Your task to perform on an android device: turn on airplane mode Image 0: 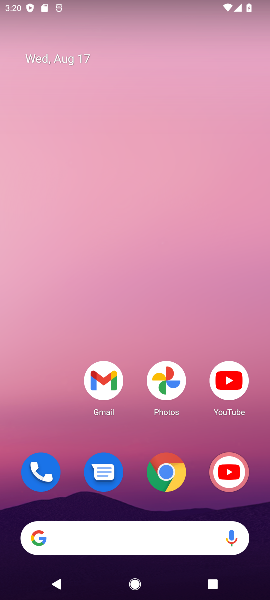
Step 0: drag from (135, 442) to (175, 47)
Your task to perform on an android device: turn on airplane mode Image 1: 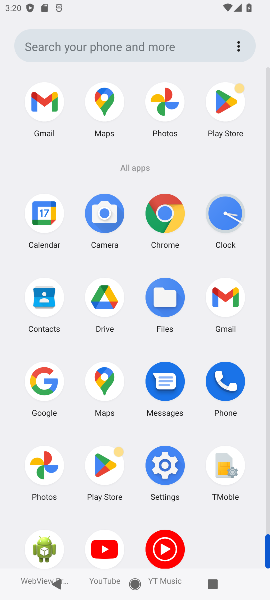
Step 1: click (157, 465)
Your task to perform on an android device: turn on airplane mode Image 2: 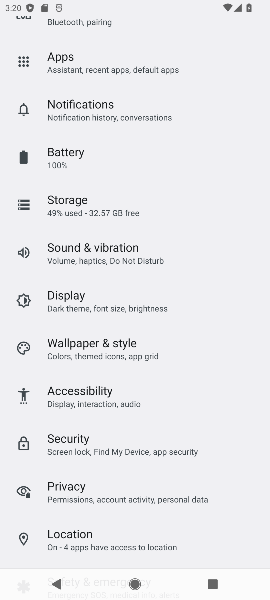
Step 2: drag from (120, 102) to (128, 475)
Your task to perform on an android device: turn on airplane mode Image 3: 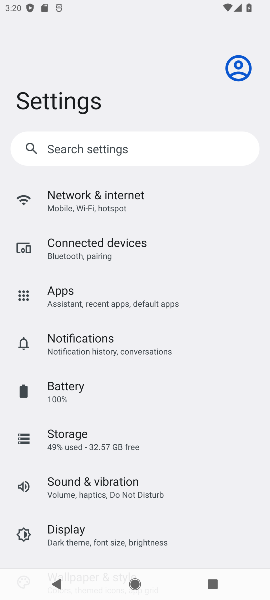
Step 3: click (92, 211)
Your task to perform on an android device: turn on airplane mode Image 4: 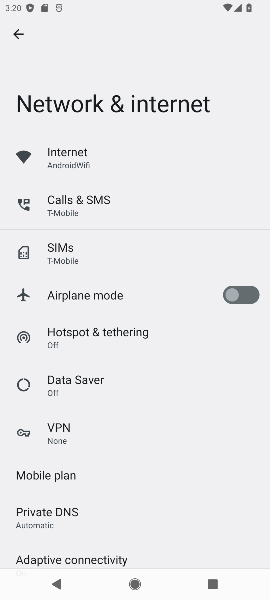
Step 4: click (247, 290)
Your task to perform on an android device: turn on airplane mode Image 5: 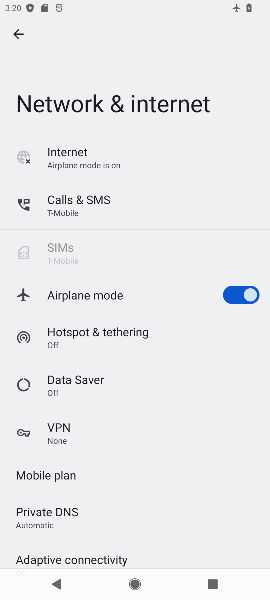
Step 5: task complete